Your task to perform on an android device: open chrome privacy settings Image 0: 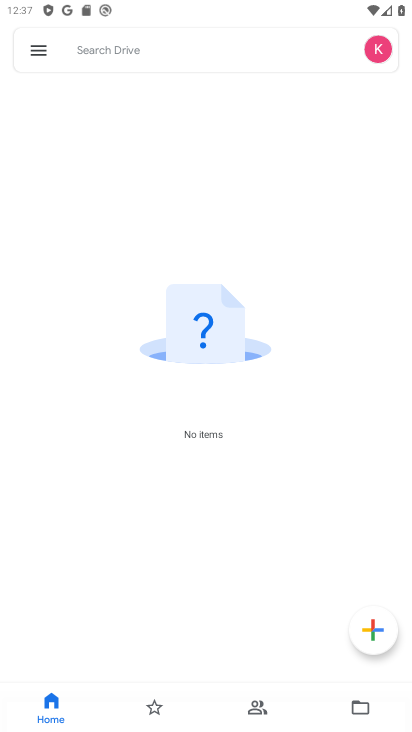
Step 0: press home button
Your task to perform on an android device: open chrome privacy settings Image 1: 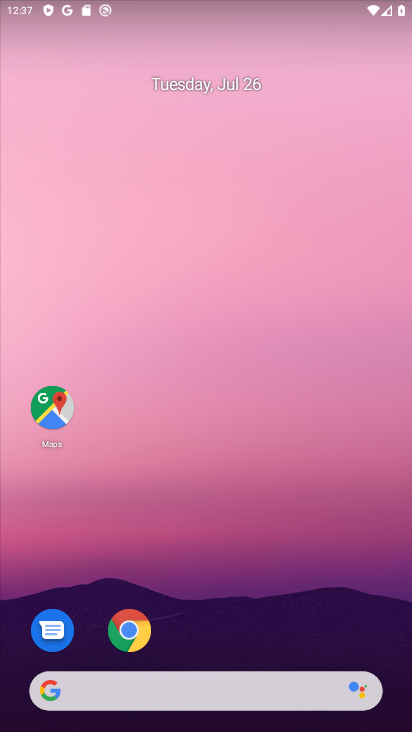
Step 1: click (123, 630)
Your task to perform on an android device: open chrome privacy settings Image 2: 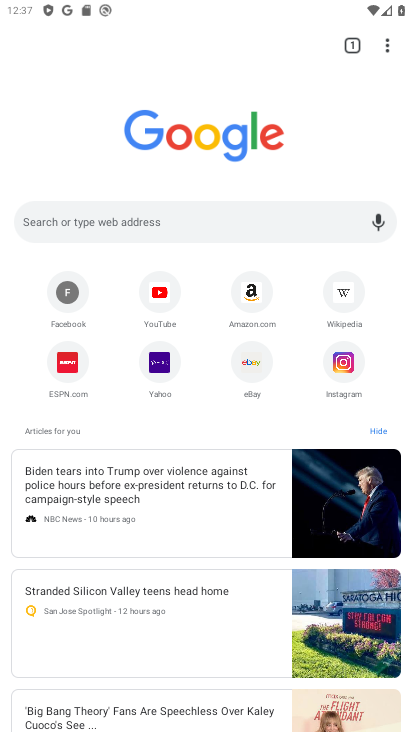
Step 2: click (385, 47)
Your task to perform on an android device: open chrome privacy settings Image 3: 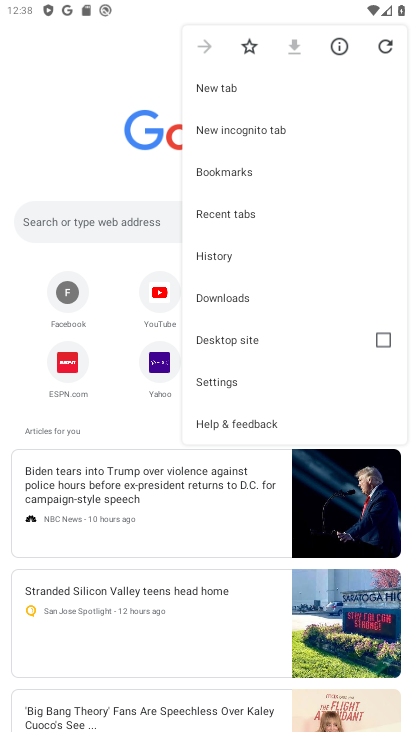
Step 3: click (226, 380)
Your task to perform on an android device: open chrome privacy settings Image 4: 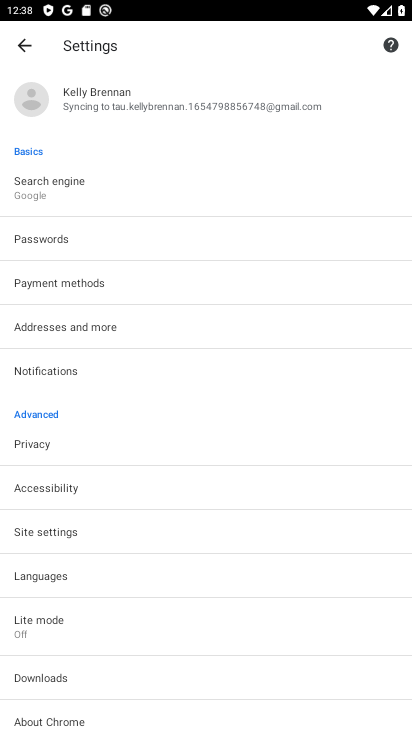
Step 4: click (48, 441)
Your task to perform on an android device: open chrome privacy settings Image 5: 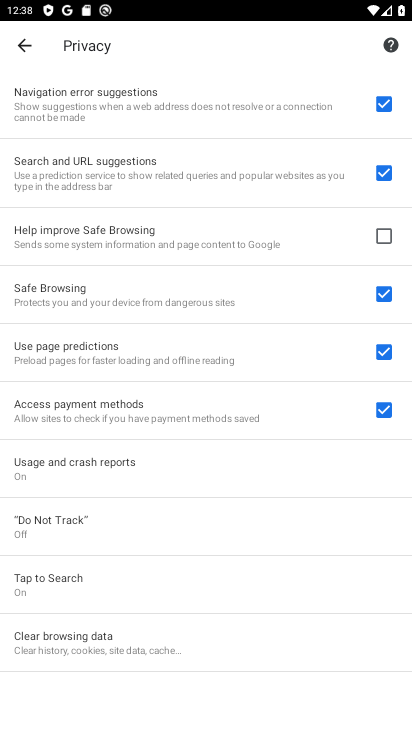
Step 5: task complete